Your task to perform on an android device: Show me the alarms in the clock app Image 0: 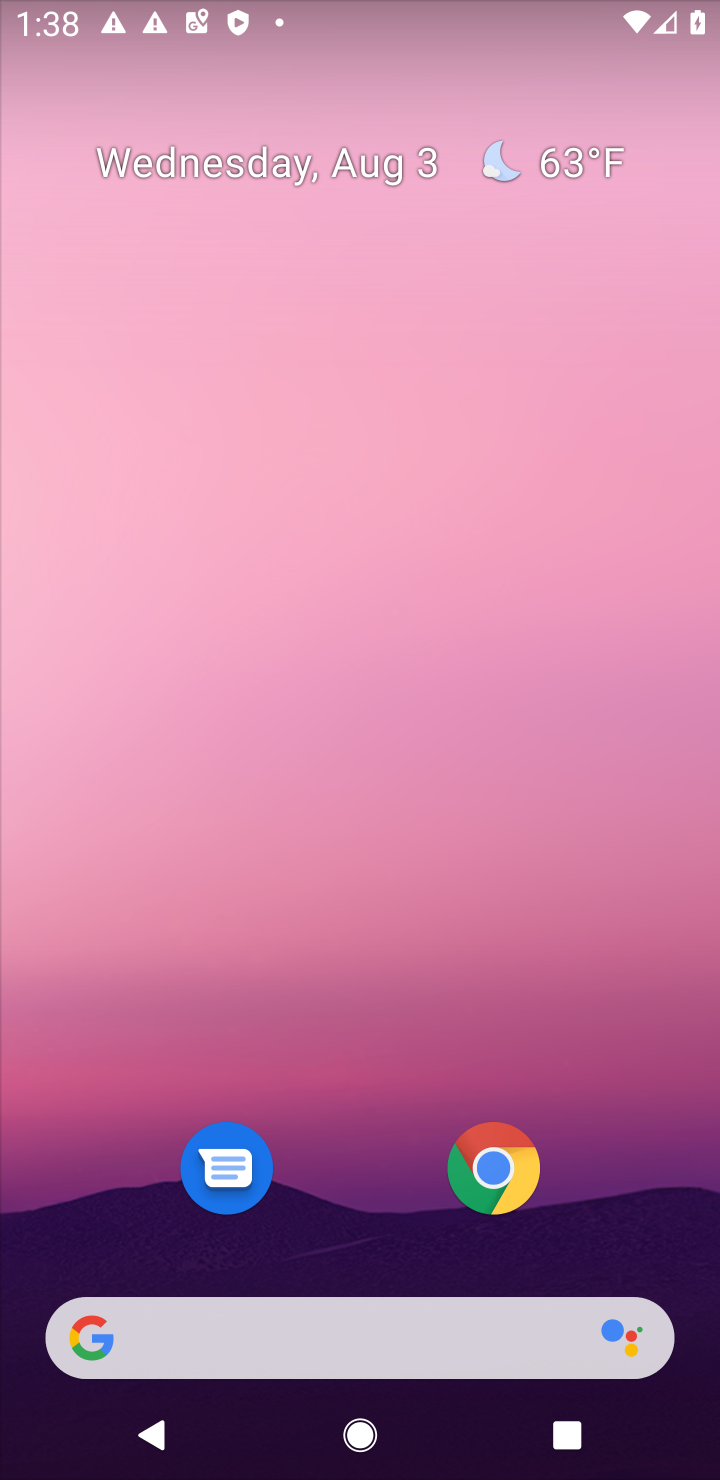
Step 0: drag from (668, 1253) to (628, 226)
Your task to perform on an android device: Show me the alarms in the clock app Image 1: 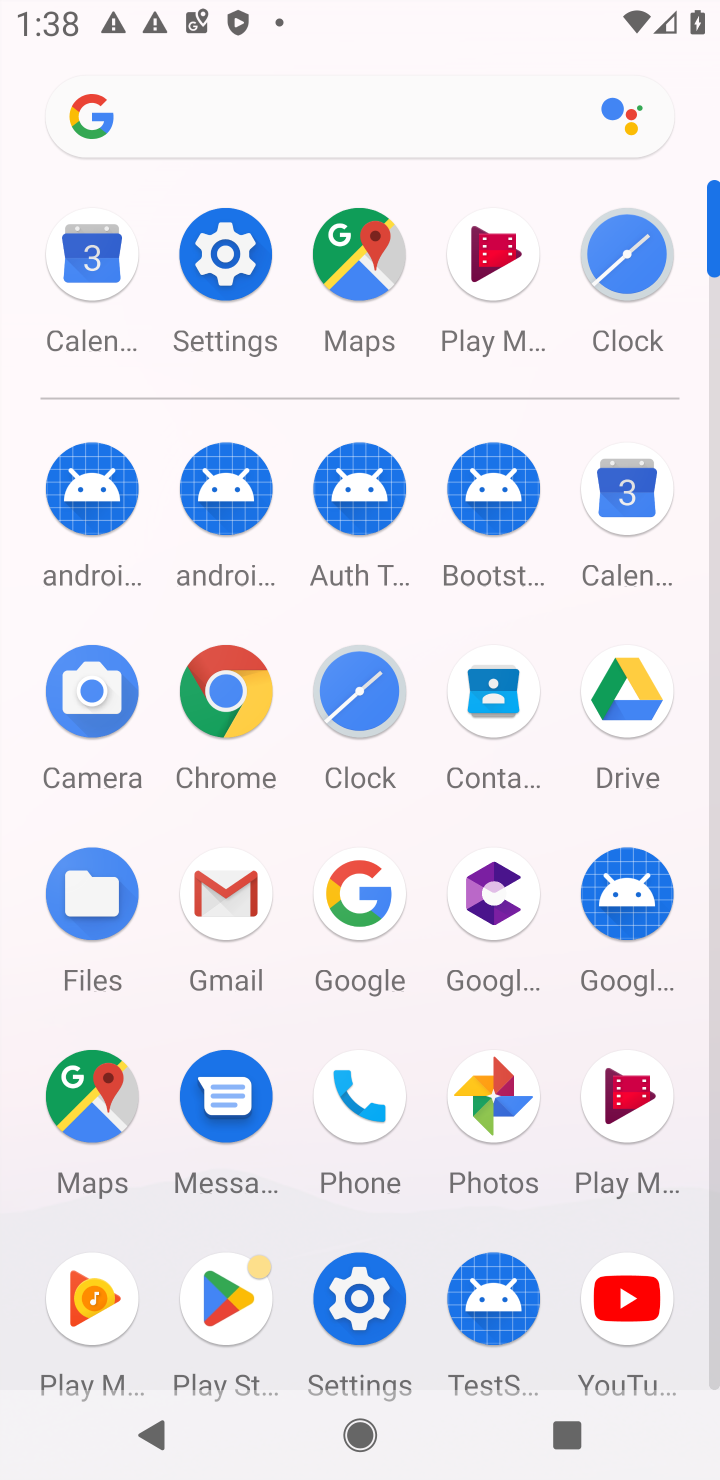
Step 1: click (352, 683)
Your task to perform on an android device: Show me the alarms in the clock app Image 2: 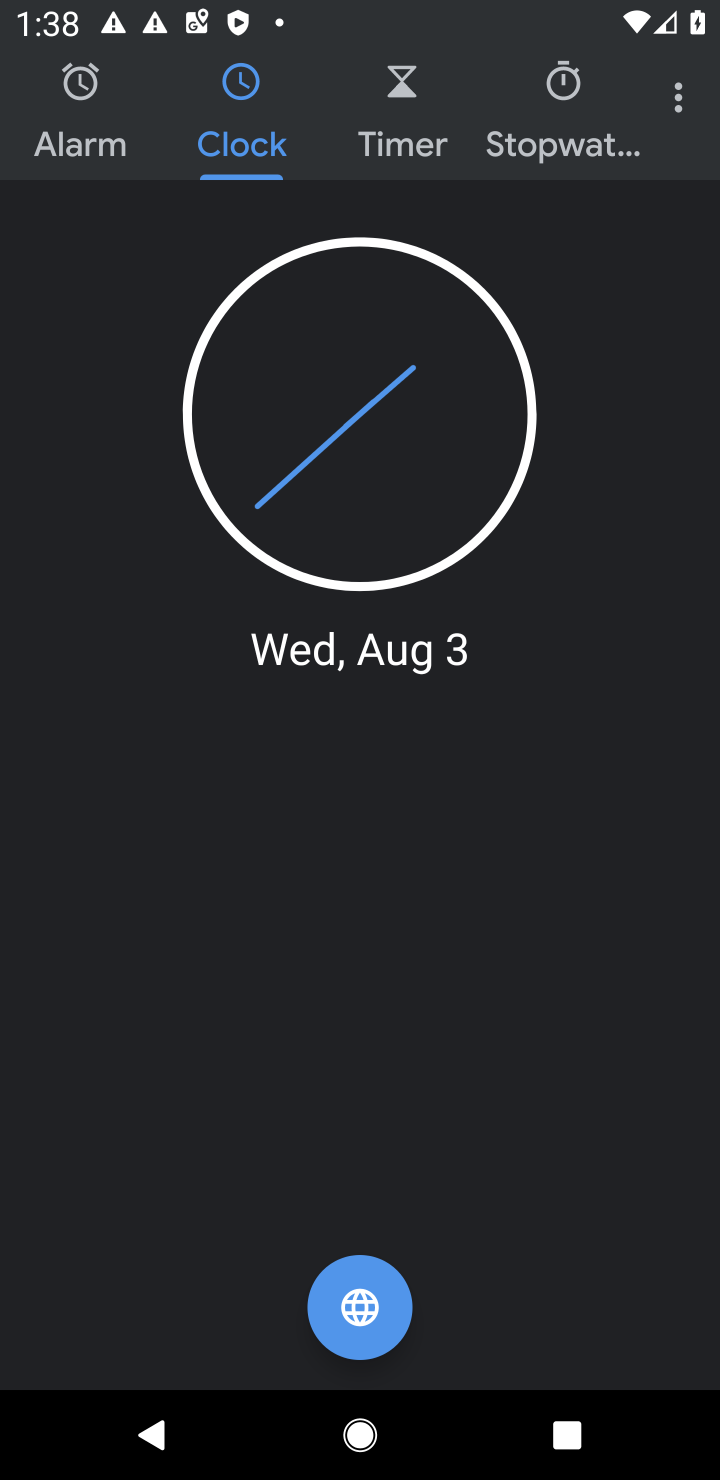
Step 2: click (97, 117)
Your task to perform on an android device: Show me the alarms in the clock app Image 3: 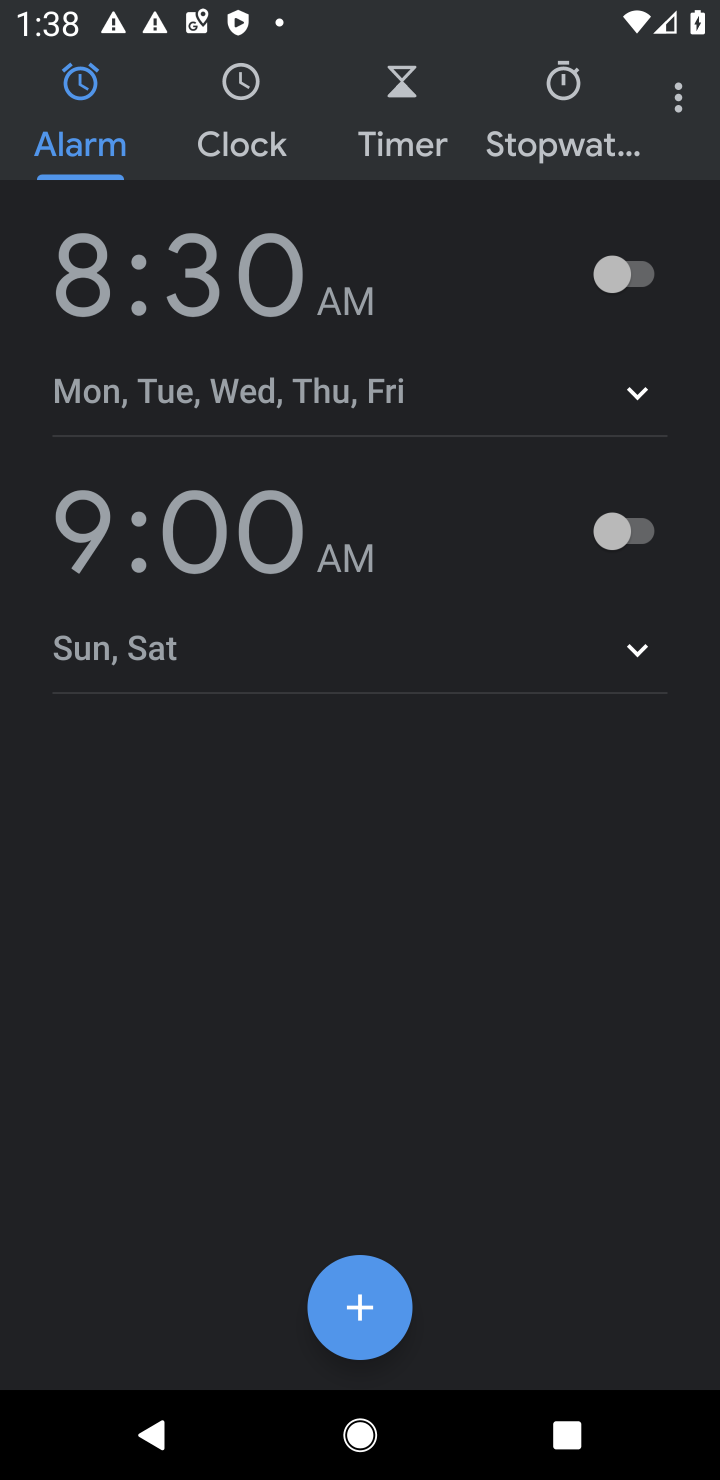
Step 3: task complete